Your task to perform on an android device: check google app version Image 0: 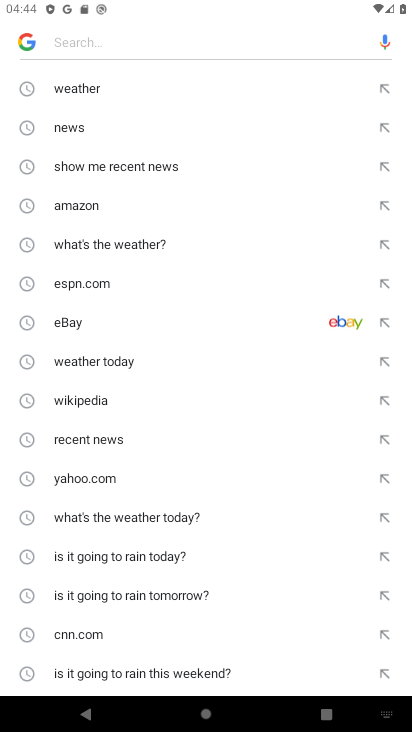
Step 0: press home button
Your task to perform on an android device: check google app version Image 1: 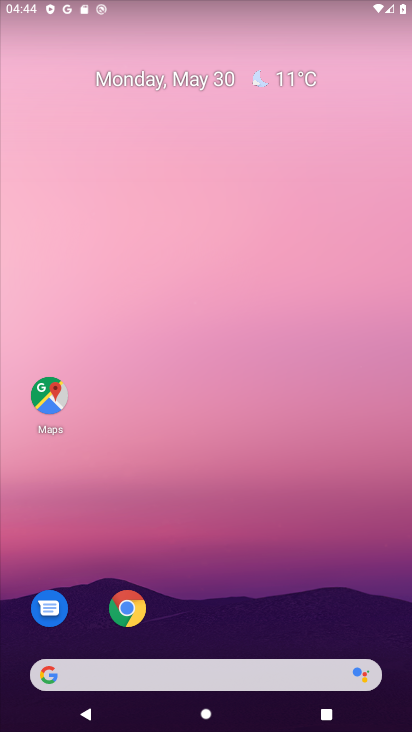
Step 1: drag from (137, 608) to (155, 192)
Your task to perform on an android device: check google app version Image 2: 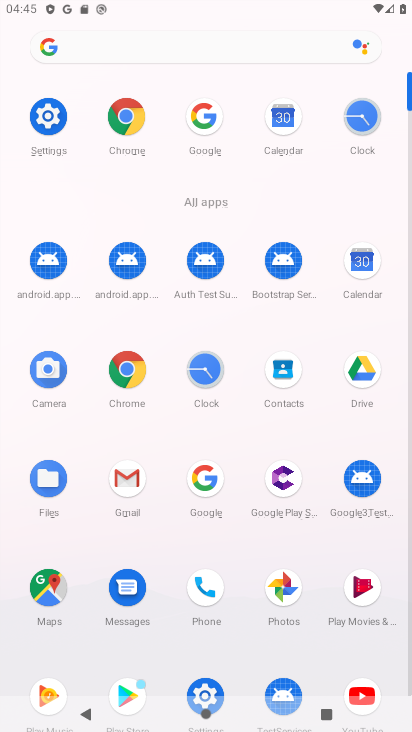
Step 2: click (210, 474)
Your task to perform on an android device: check google app version Image 3: 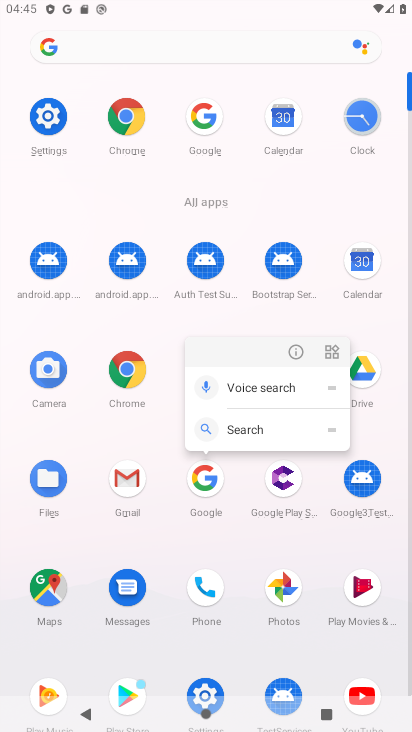
Step 3: click (296, 347)
Your task to perform on an android device: check google app version Image 4: 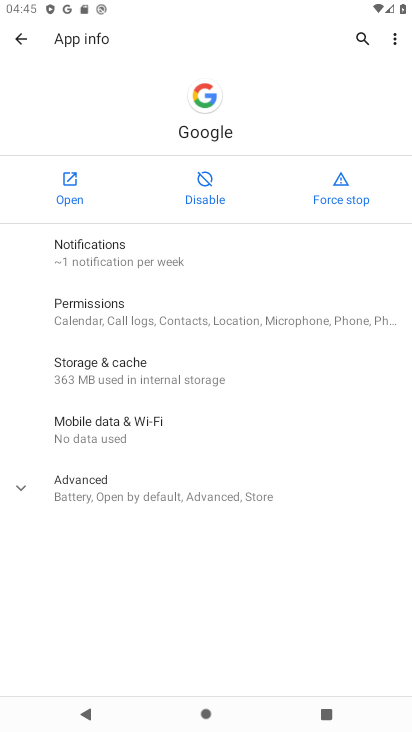
Step 4: click (104, 493)
Your task to perform on an android device: check google app version Image 5: 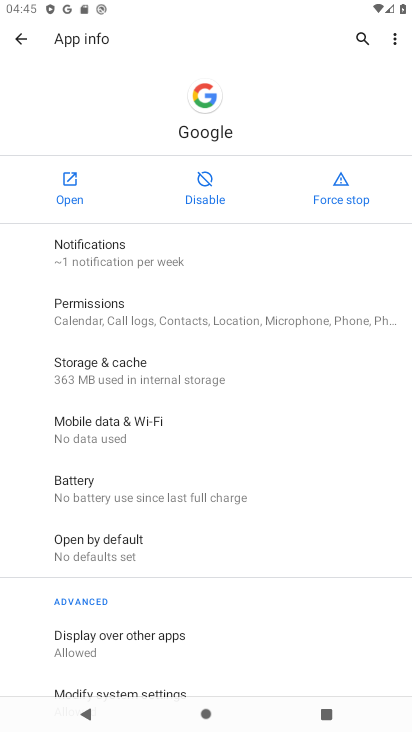
Step 5: task complete